Your task to perform on an android device: Open wifi settings Image 0: 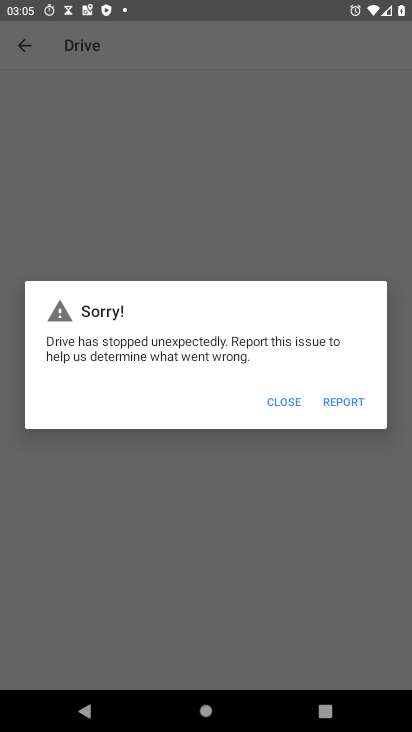
Step 0: press home button
Your task to perform on an android device: Open wifi settings Image 1: 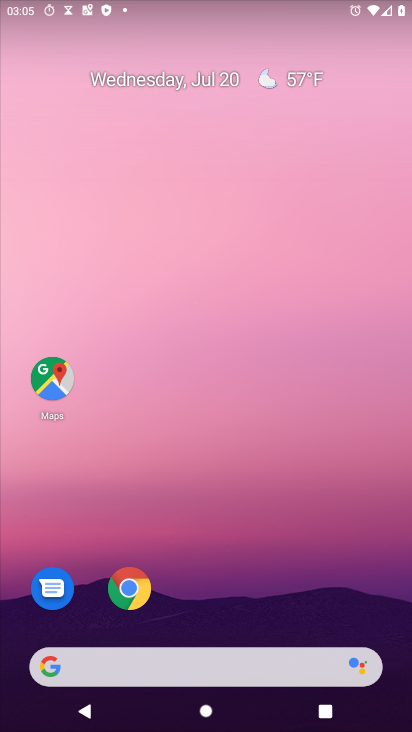
Step 1: drag from (220, 651) to (235, 6)
Your task to perform on an android device: Open wifi settings Image 2: 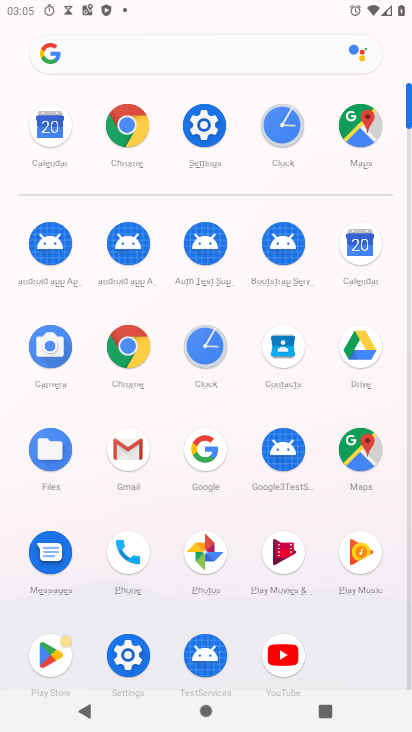
Step 2: click (218, 125)
Your task to perform on an android device: Open wifi settings Image 3: 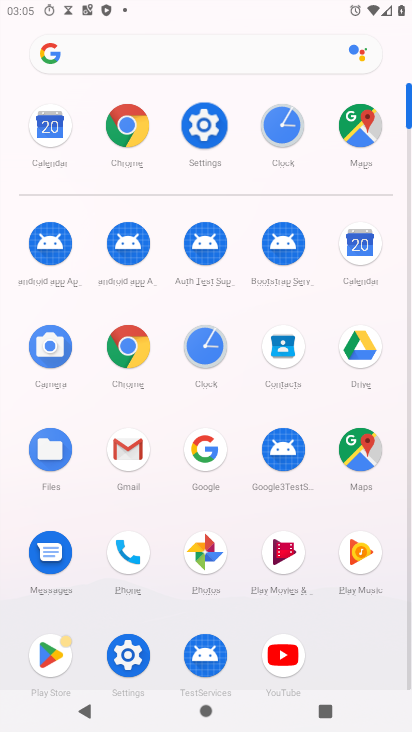
Step 3: click (218, 125)
Your task to perform on an android device: Open wifi settings Image 4: 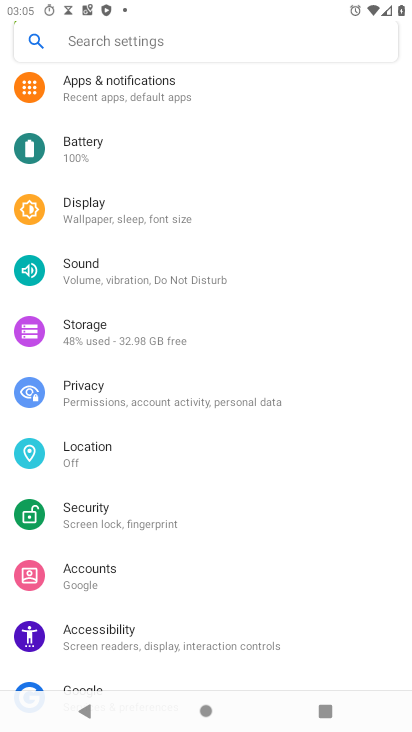
Step 4: drag from (136, 124) to (137, 380)
Your task to perform on an android device: Open wifi settings Image 5: 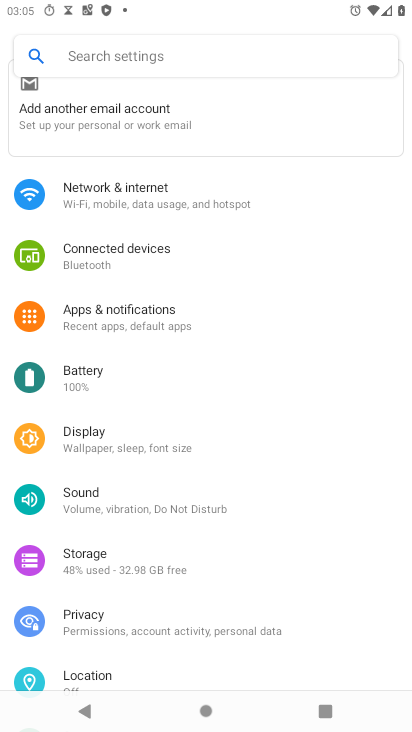
Step 5: click (158, 192)
Your task to perform on an android device: Open wifi settings Image 6: 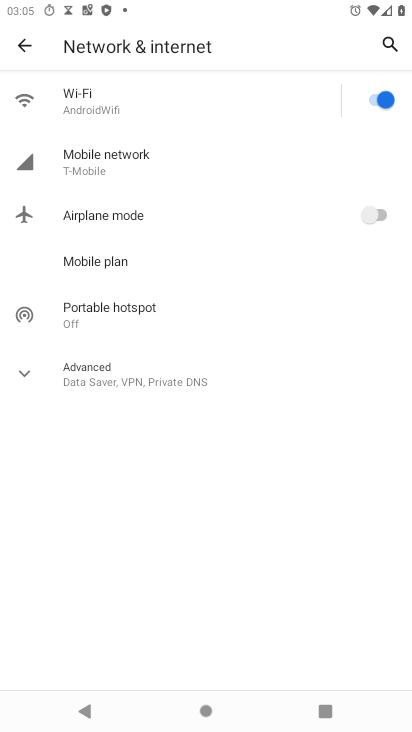
Step 6: task complete